Your task to perform on an android device: change the clock display to digital Image 0: 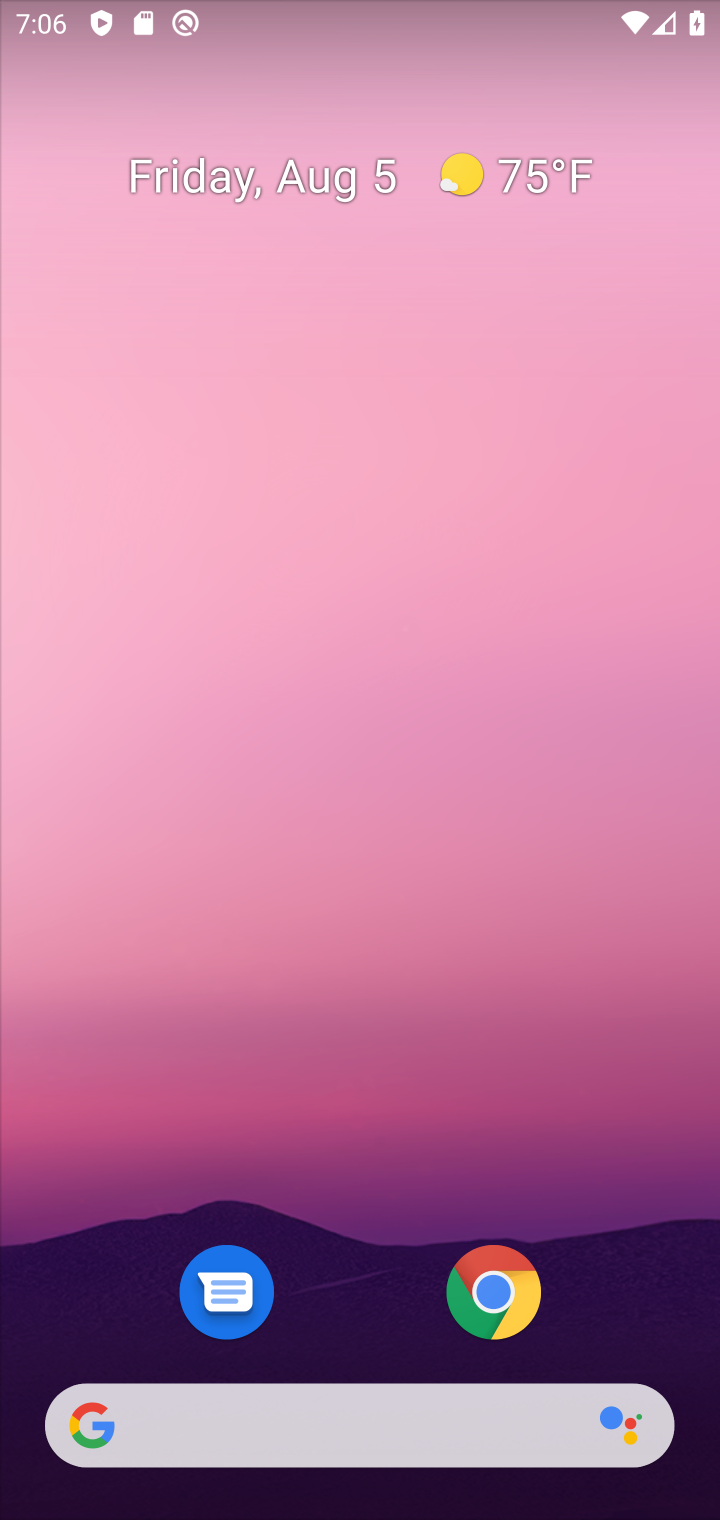
Step 0: drag from (321, 1246) to (249, 85)
Your task to perform on an android device: change the clock display to digital Image 1: 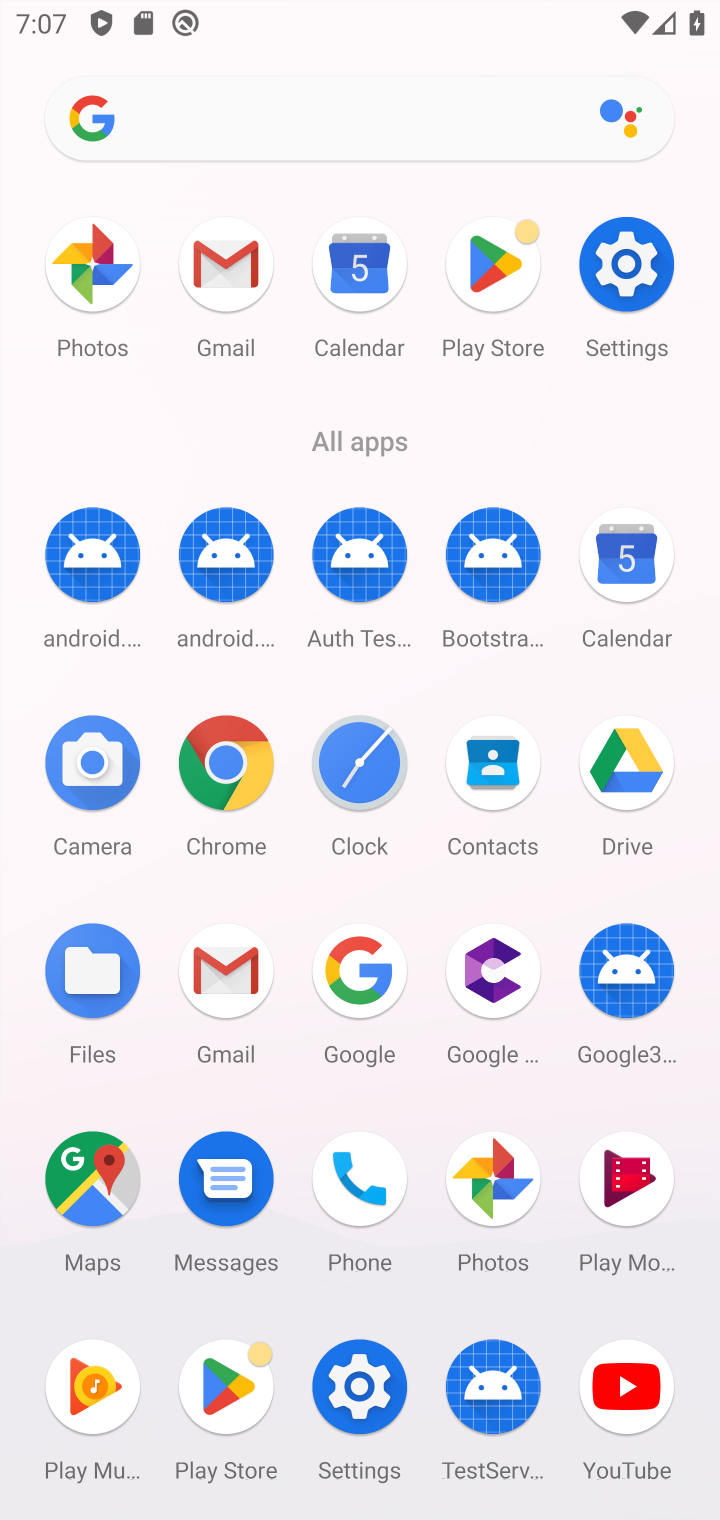
Step 1: click (375, 748)
Your task to perform on an android device: change the clock display to digital Image 2: 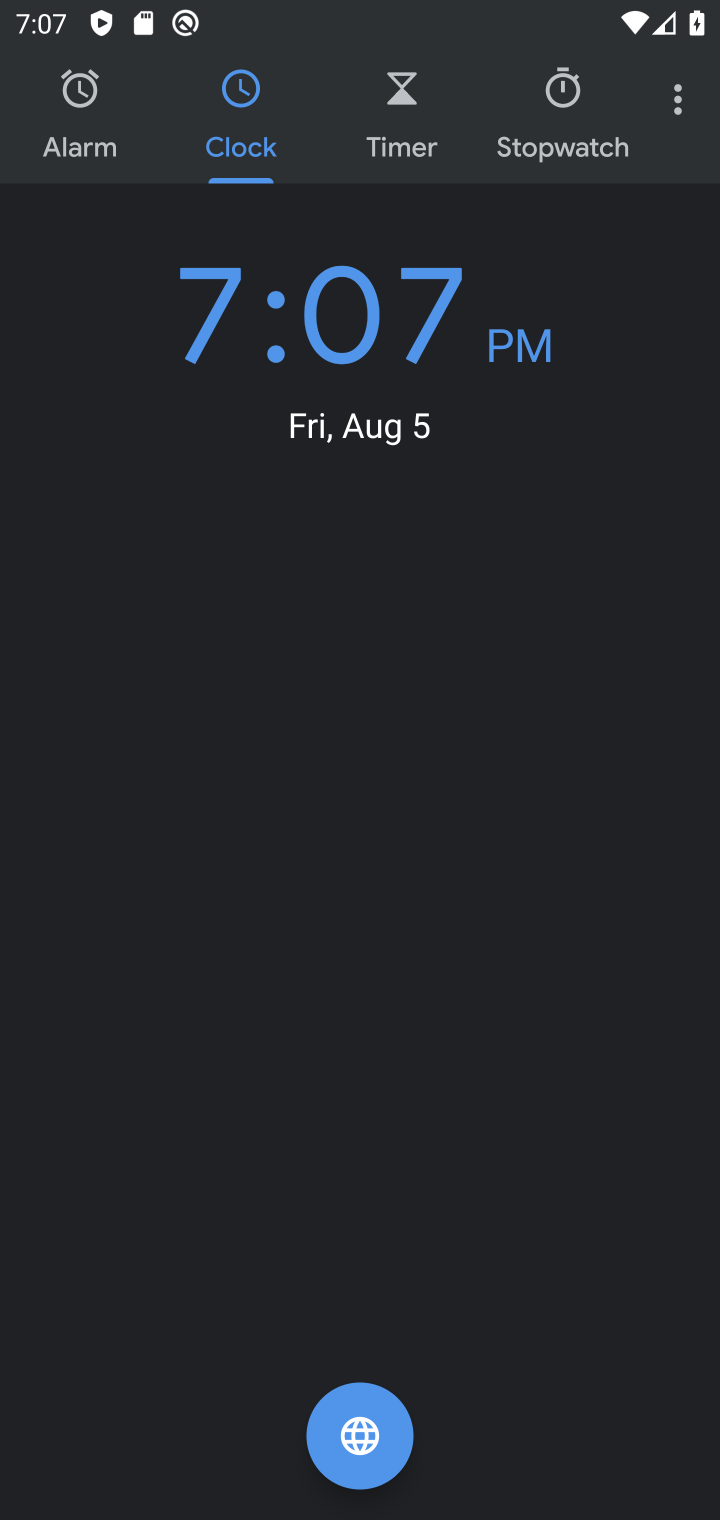
Step 2: task complete